Your task to perform on an android device: turn on improve location accuracy Image 0: 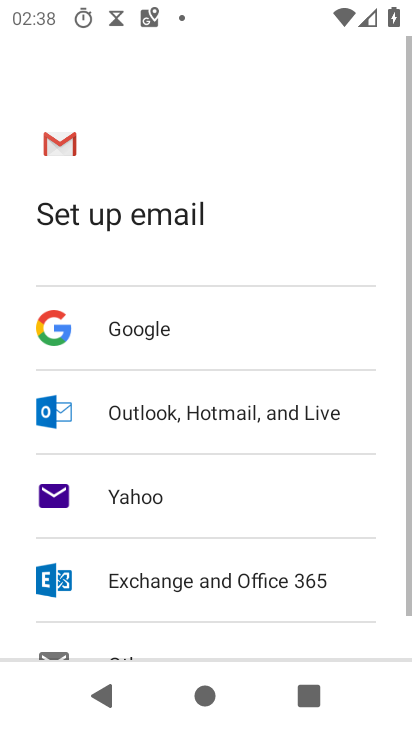
Step 0: press home button
Your task to perform on an android device: turn on improve location accuracy Image 1: 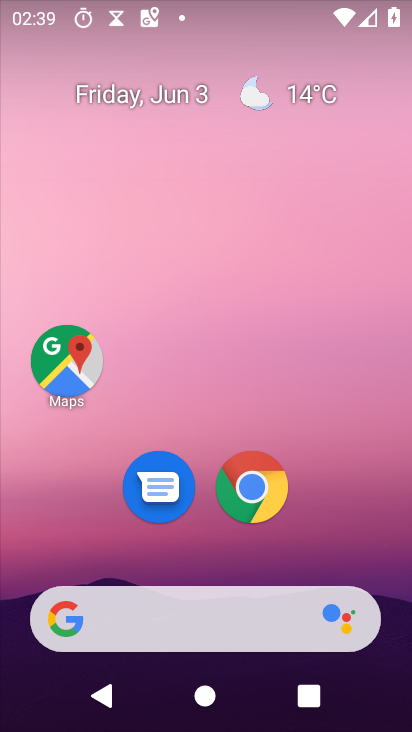
Step 1: drag from (310, 562) to (206, 24)
Your task to perform on an android device: turn on improve location accuracy Image 2: 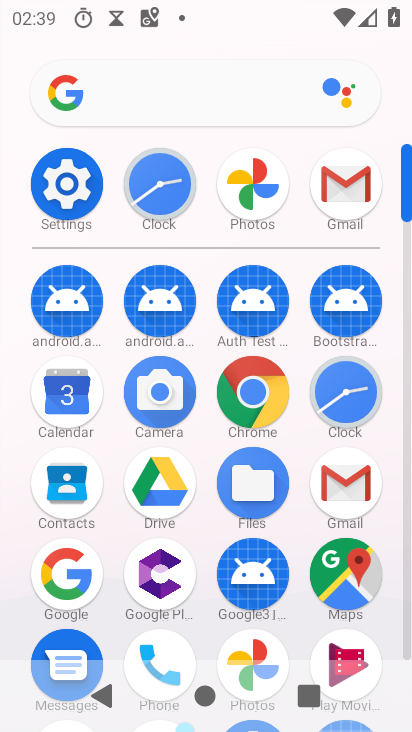
Step 2: click (74, 191)
Your task to perform on an android device: turn on improve location accuracy Image 3: 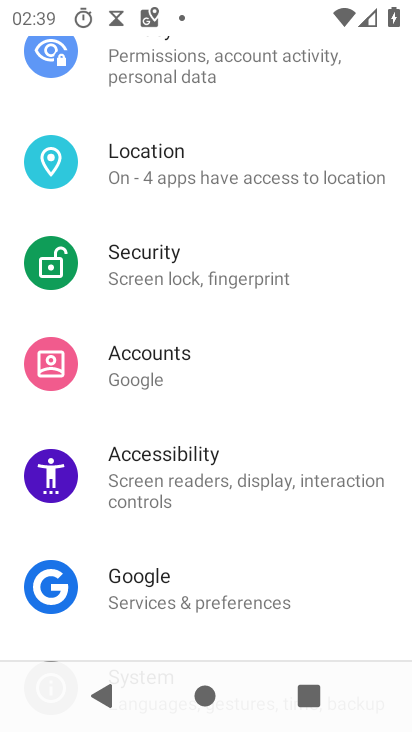
Step 3: drag from (280, 435) to (283, 594)
Your task to perform on an android device: turn on improve location accuracy Image 4: 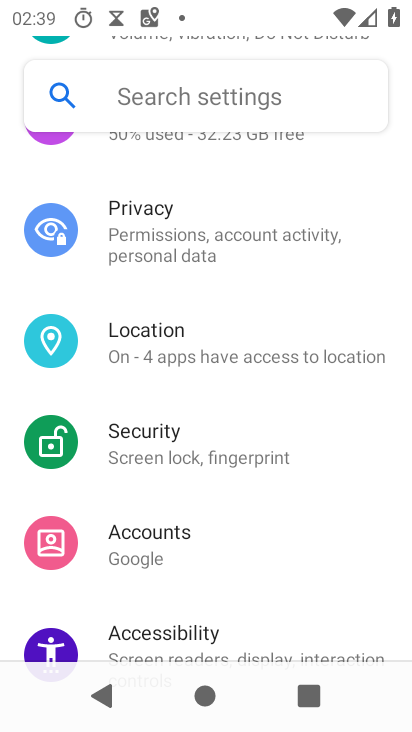
Step 4: click (229, 330)
Your task to perform on an android device: turn on improve location accuracy Image 5: 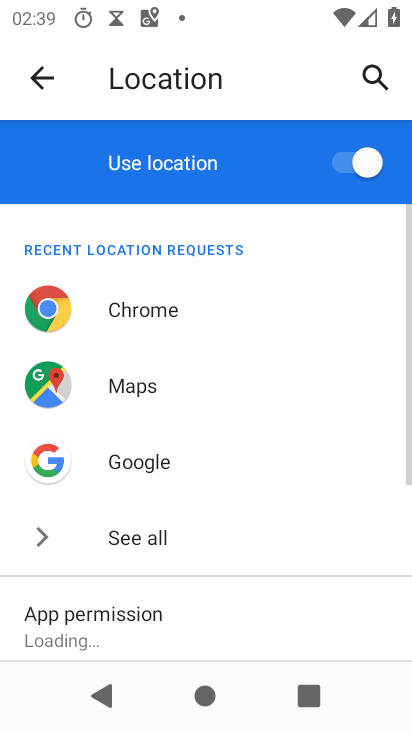
Step 5: drag from (244, 520) to (210, 36)
Your task to perform on an android device: turn on improve location accuracy Image 6: 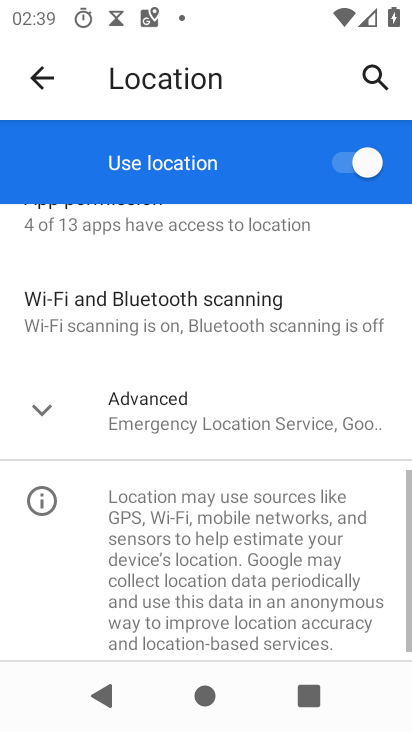
Step 6: click (227, 424)
Your task to perform on an android device: turn on improve location accuracy Image 7: 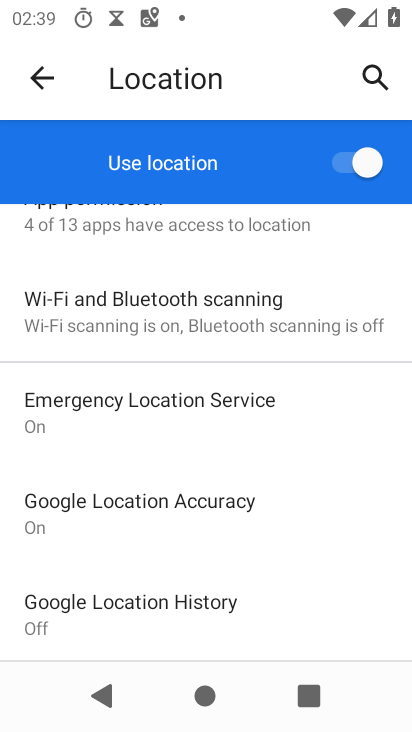
Step 7: click (240, 513)
Your task to perform on an android device: turn on improve location accuracy Image 8: 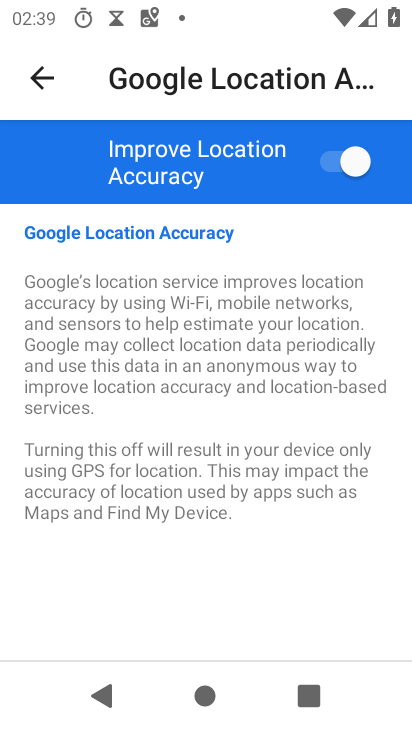
Step 8: task complete